Your task to perform on an android device: Open accessibility settings Image 0: 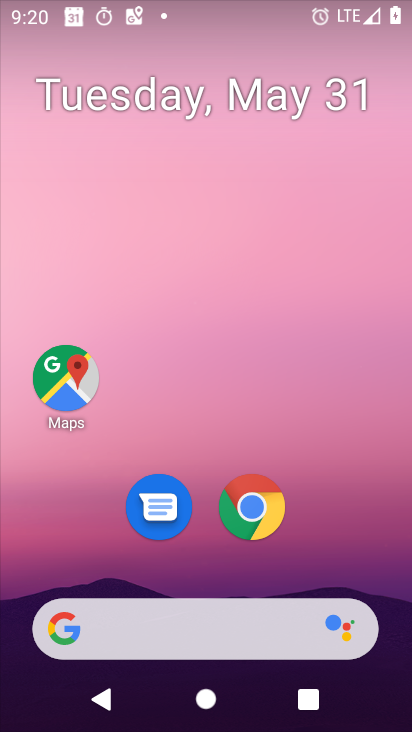
Step 0: drag from (73, 545) to (300, 182)
Your task to perform on an android device: Open accessibility settings Image 1: 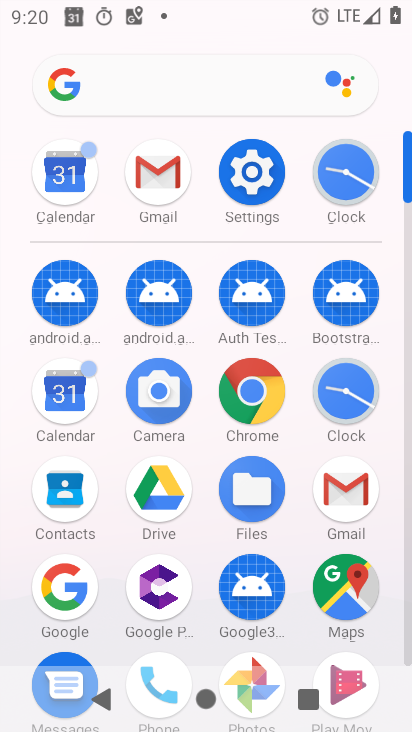
Step 1: click (249, 160)
Your task to perform on an android device: Open accessibility settings Image 2: 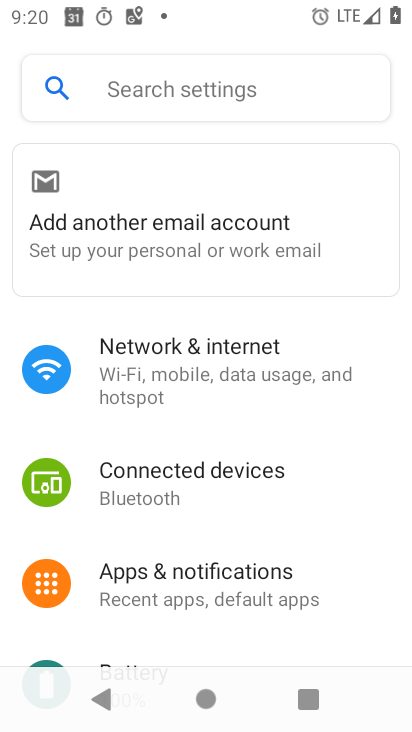
Step 2: drag from (28, 539) to (331, 124)
Your task to perform on an android device: Open accessibility settings Image 3: 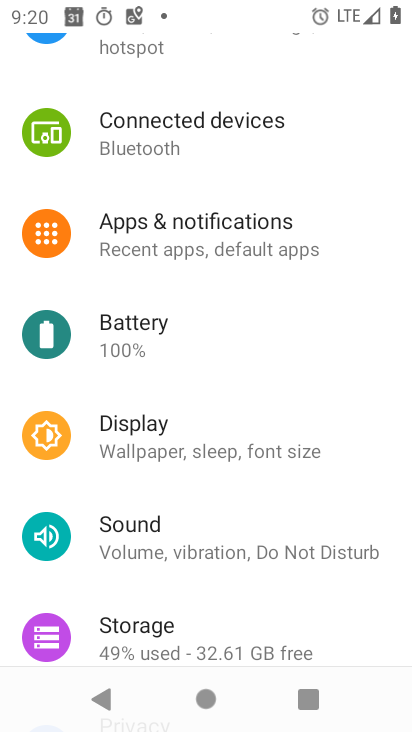
Step 3: drag from (101, 487) to (329, 165)
Your task to perform on an android device: Open accessibility settings Image 4: 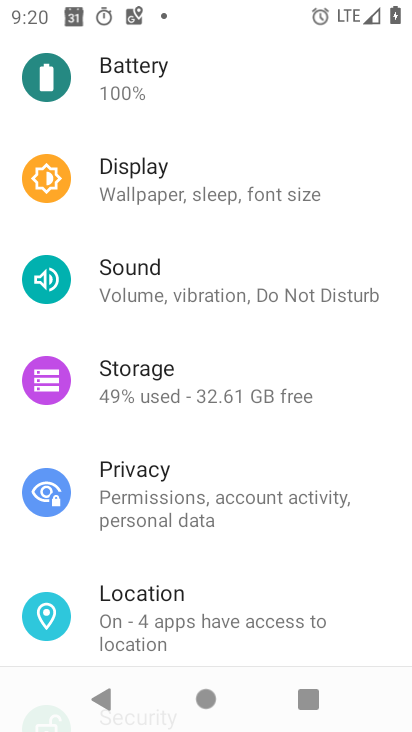
Step 4: drag from (20, 568) to (321, 185)
Your task to perform on an android device: Open accessibility settings Image 5: 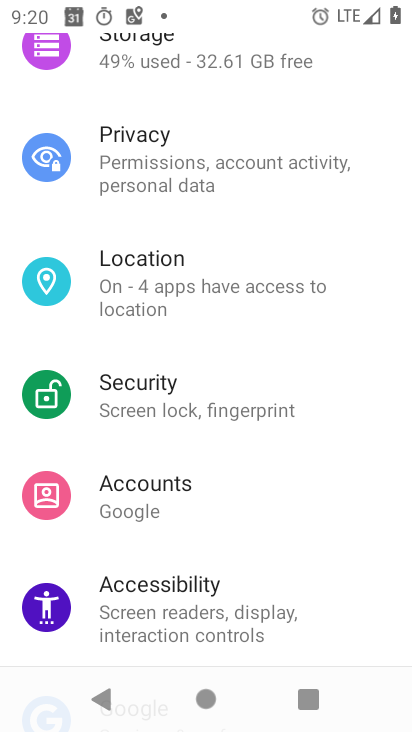
Step 5: click (147, 617)
Your task to perform on an android device: Open accessibility settings Image 6: 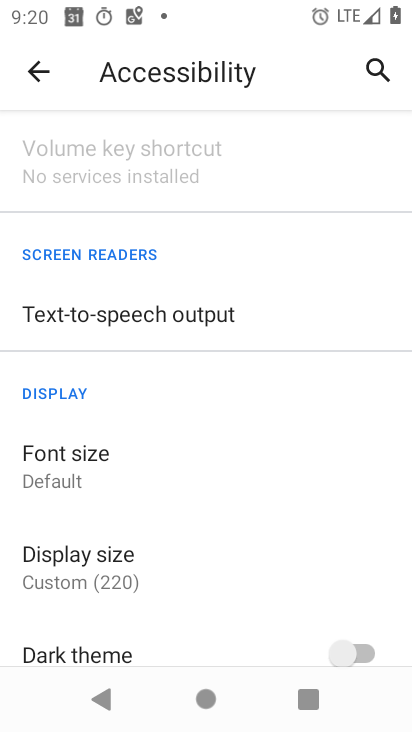
Step 6: task complete